Your task to perform on an android device: set the stopwatch Image 0: 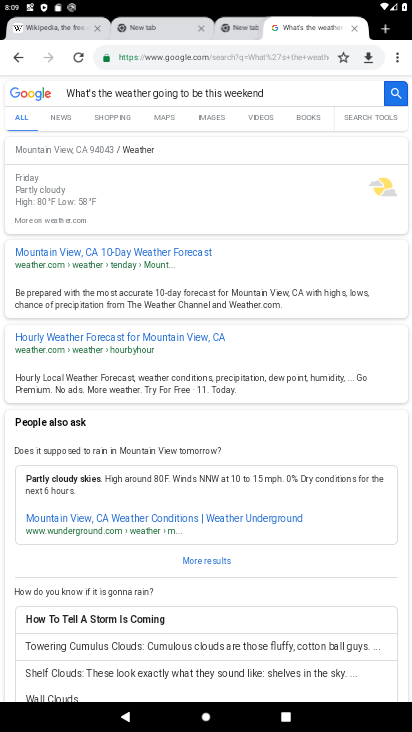
Step 0: press home button
Your task to perform on an android device: set the stopwatch Image 1: 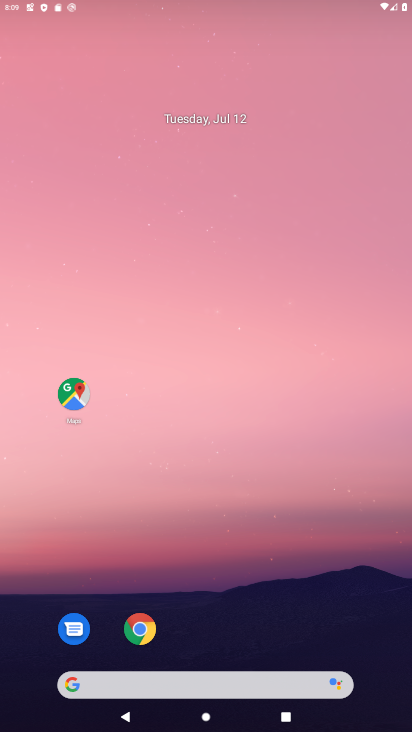
Step 1: drag from (173, 610) to (185, 203)
Your task to perform on an android device: set the stopwatch Image 2: 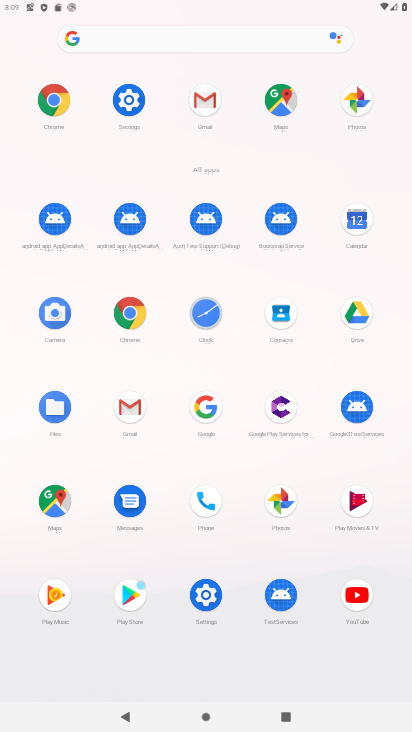
Step 2: click (206, 293)
Your task to perform on an android device: set the stopwatch Image 3: 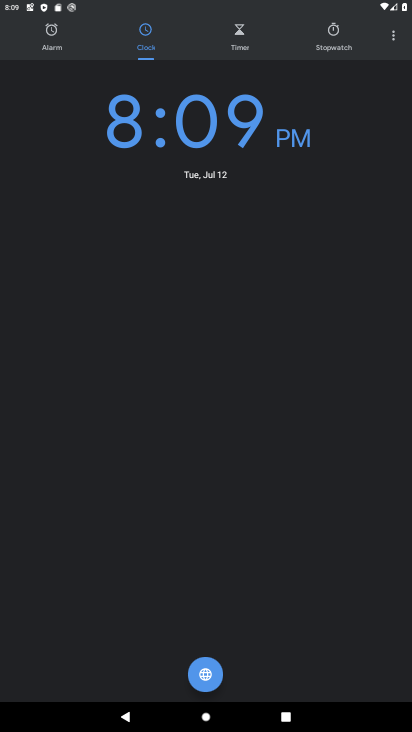
Step 3: click (341, 21)
Your task to perform on an android device: set the stopwatch Image 4: 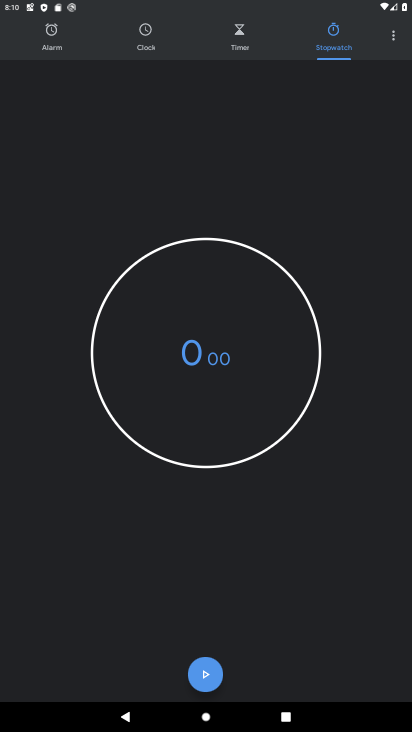
Step 4: task complete